Your task to perform on an android device: Go to internet settings Image 0: 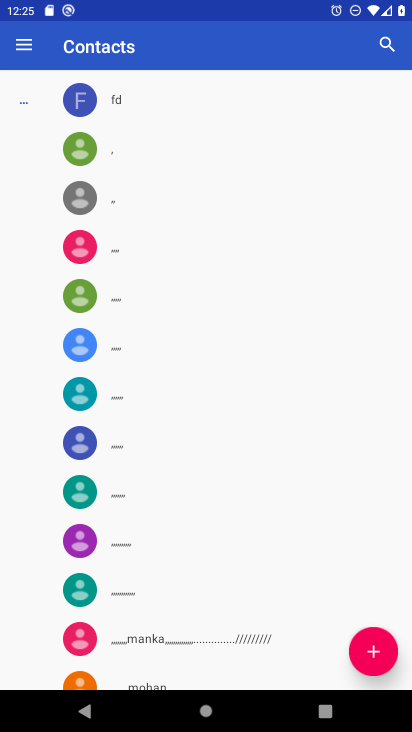
Step 0: press home button
Your task to perform on an android device: Go to internet settings Image 1: 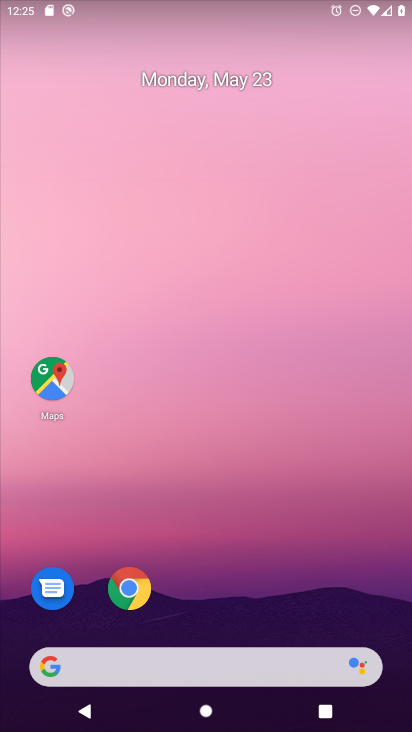
Step 1: drag from (297, 636) to (210, 119)
Your task to perform on an android device: Go to internet settings Image 2: 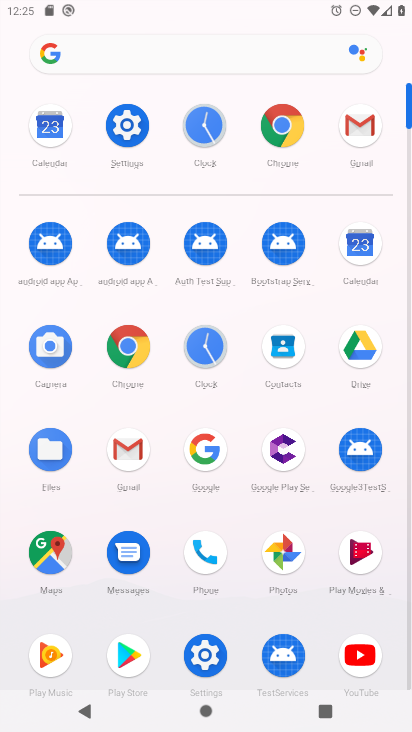
Step 2: click (206, 656)
Your task to perform on an android device: Go to internet settings Image 3: 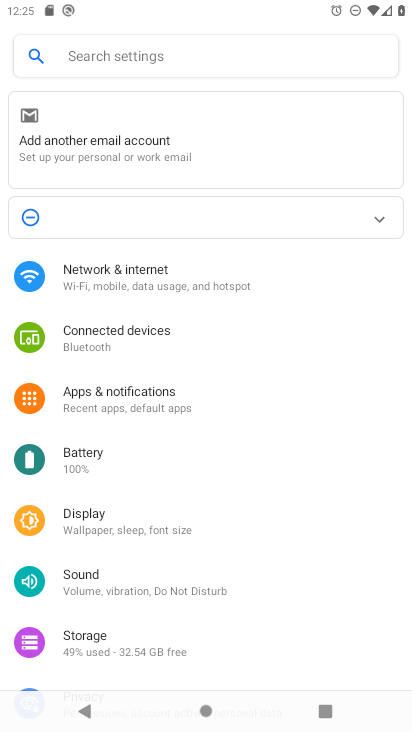
Step 3: click (181, 295)
Your task to perform on an android device: Go to internet settings Image 4: 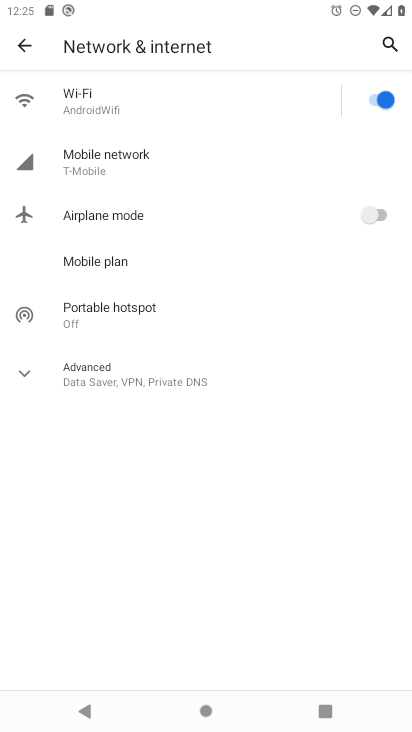
Step 4: task complete